Your task to perform on an android device: set the timer Image 0: 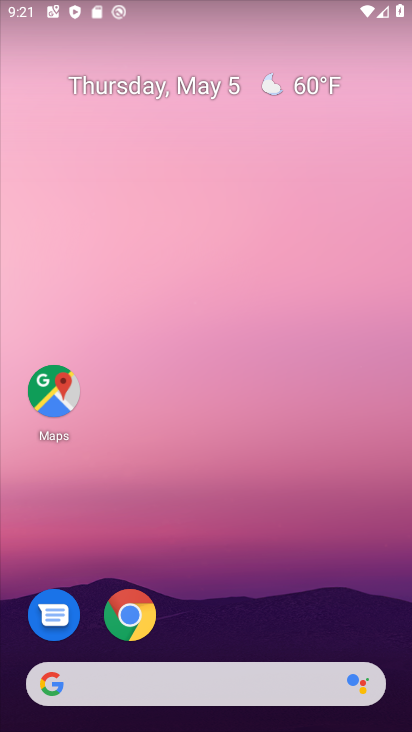
Step 0: drag from (220, 603) to (260, 154)
Your task to perform on an android device: set the timer Image 1: 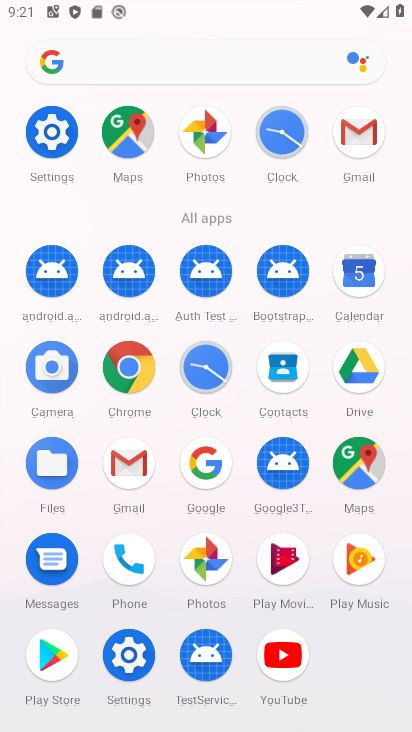
Step 1: click (192, 369)
Your task to perform on an android device: set the timer Image 2: 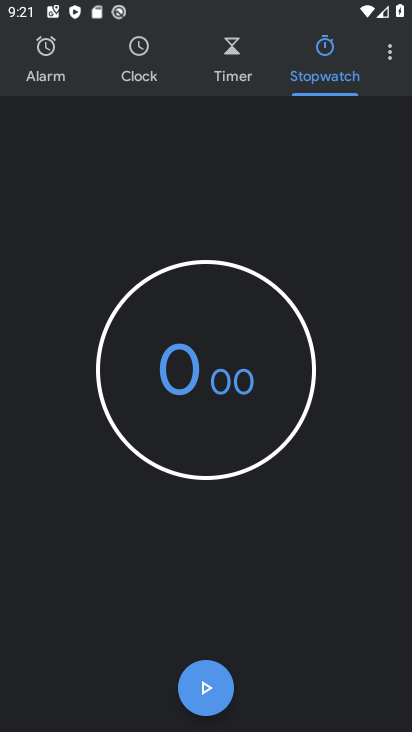
Step 2: click (233, 61)
Your task to perform on an android device: set the timer Image 3: 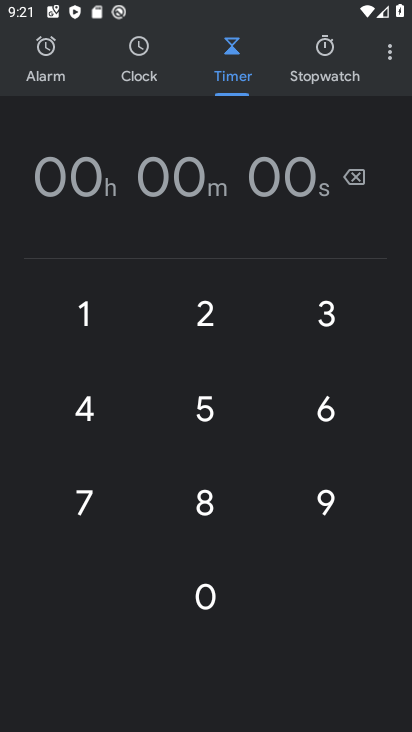
Step 3: click (203, 313)
Your task to perform on an android device: set the timer Image 4: 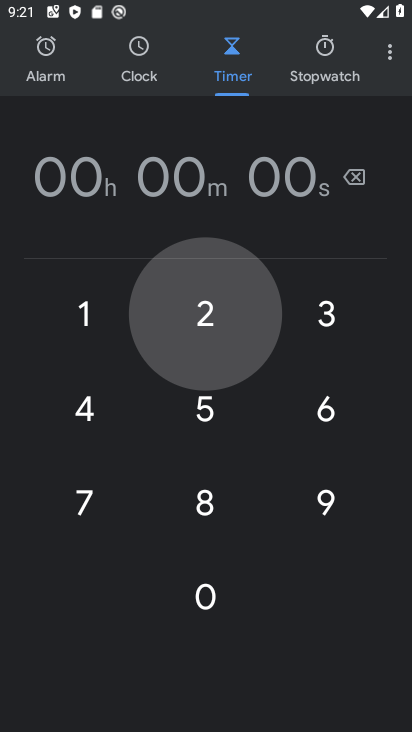
Step 4: click (203, 313)
Your task to perform on an android device: set the timer Image 5: 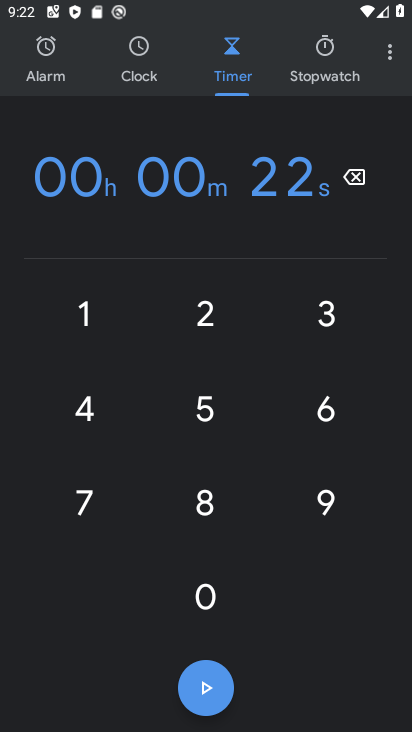
Step 5: task complete